Your task to perform on an android device: turn on data saver in the chrome app Image 0: 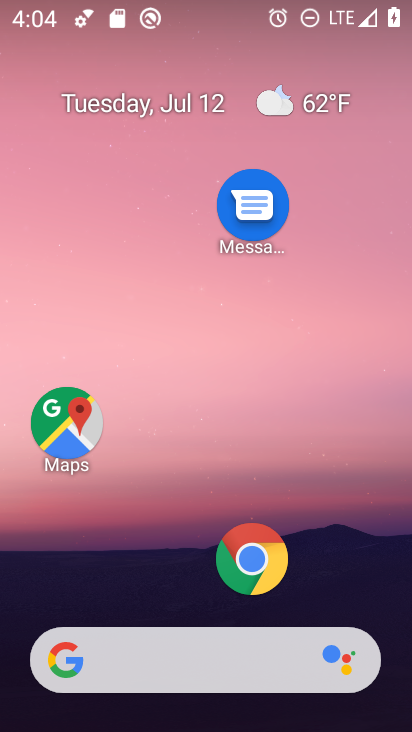
Step 0: click (250, 555)
Your task to perform on an android device: turn on data saver in the chrome app Image 1: 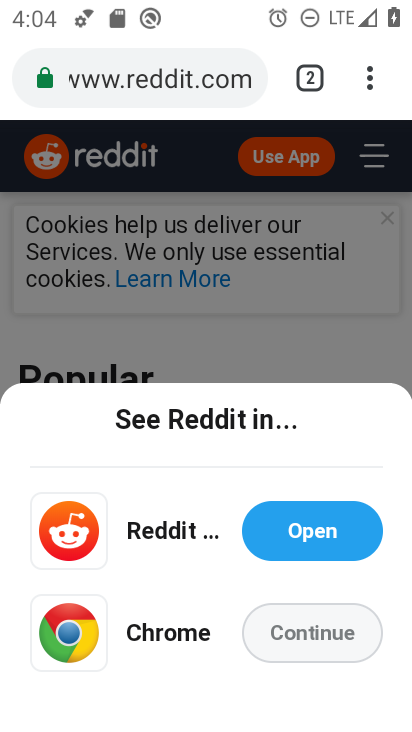
Step 1: drag from (362, 71) to (131, 605)
Your task to perform on an android device: turn on data saver in the chrome app Image 2: 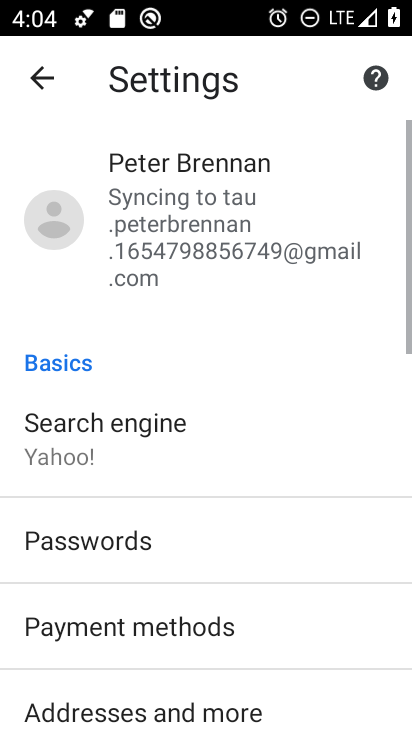
Step 2: drag from (125, 665) to (269, 48)
Your task to perform on an android device: turn on data saver in the chrome app Image 3: 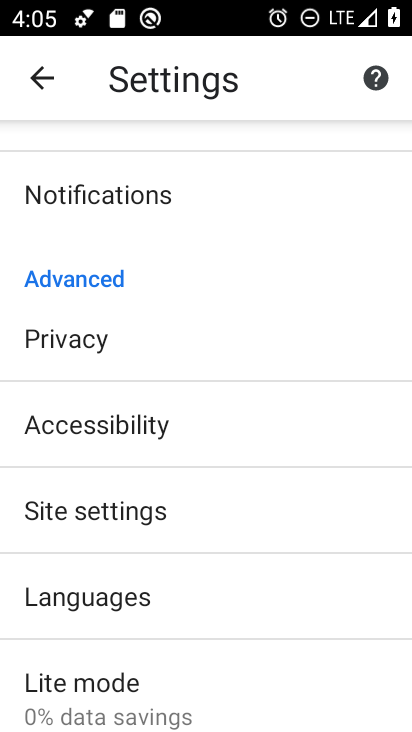
Step 3: drag from (155, 685) to (238, 306)
Your task to perform on an android device: turn on data saver in the chrome app Image 4: 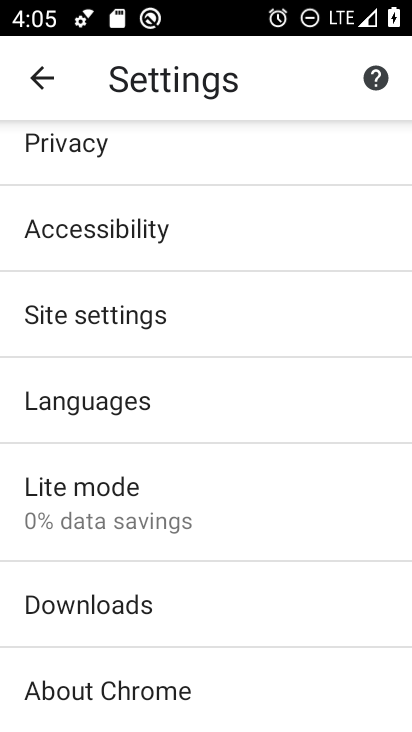
Step 4: click (129, 506)
Your task to perform on an android device: turn on data saver in the chrome app Image 5: 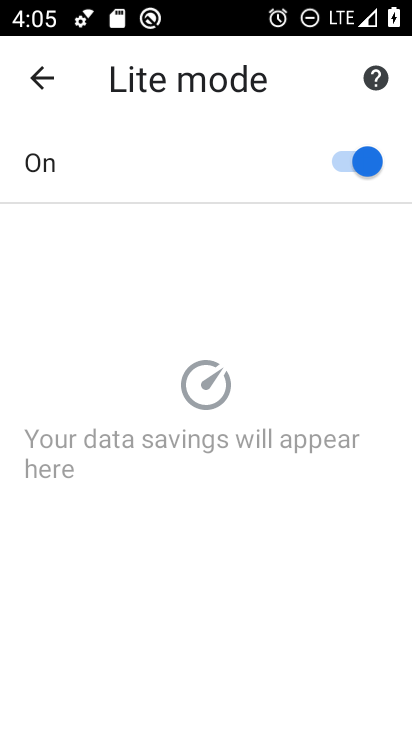
Step 5: task complete